Your task to perform on an android device: change notifications settings Image 0: 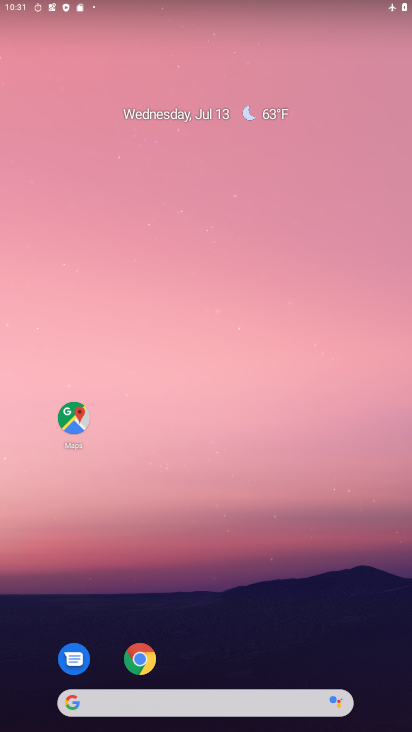
Step 0: drag from (287, 555) to (250, 71)
Your task to perform on an android device: change notifications settings Image 1: 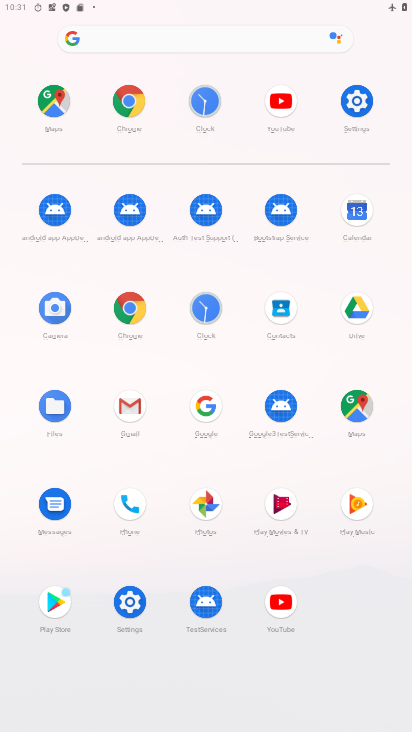
Step 1: click (356, 94)
Your task to perform on an android device: change notifications settings Image 2: 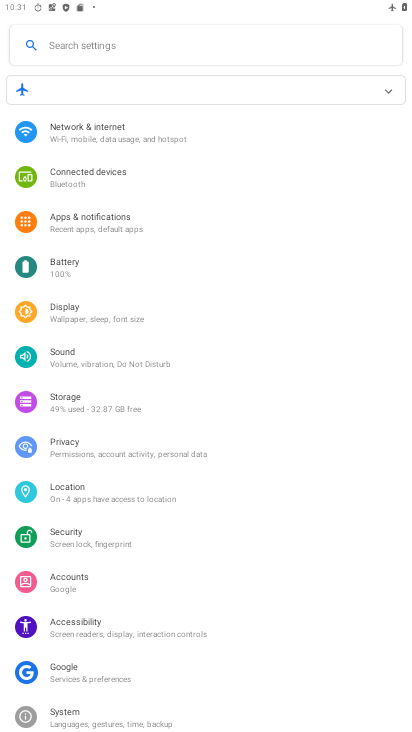
Step 2: click (98, 231)
Your task to perform on an android device: change notifications settings Image 3: 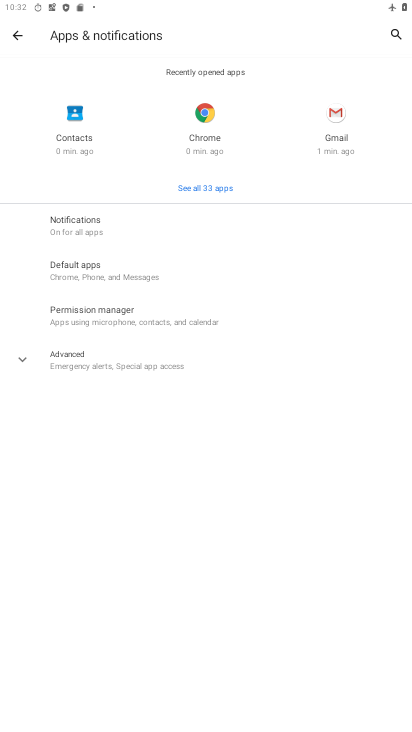
Step 3: click (101, 222)
Your task to perform on an android device: change notifications settings Image 4: 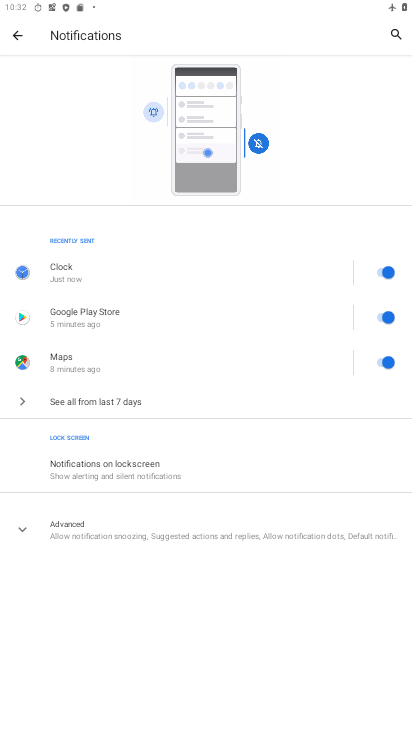
Step 4: click (102, 527)
Your task to perform on an android device: change notifications settings Image 5: 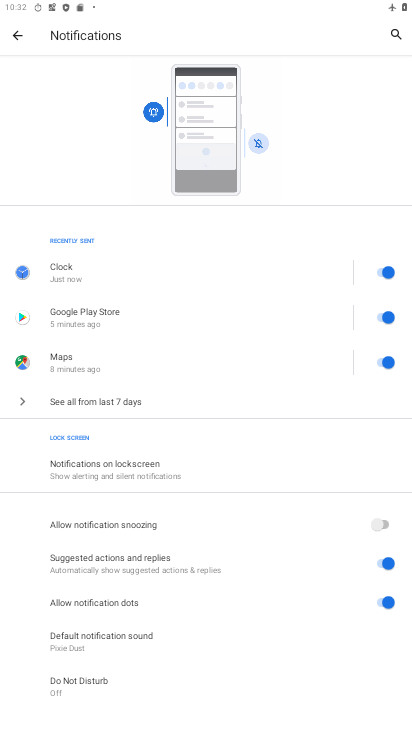
Step 5: click (375, 529)
Your task to perform on an android device: change notifications settings Image 6: 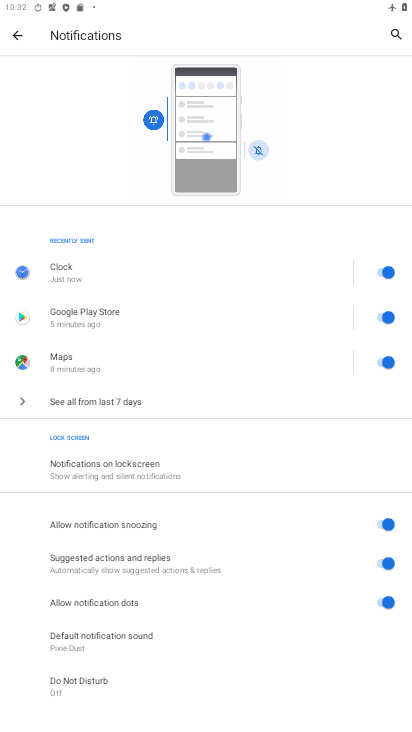
Step 6: task complete